Your task to perform on an android device: open app "Etsy: Buy & Sell Unique Items" Image 0: 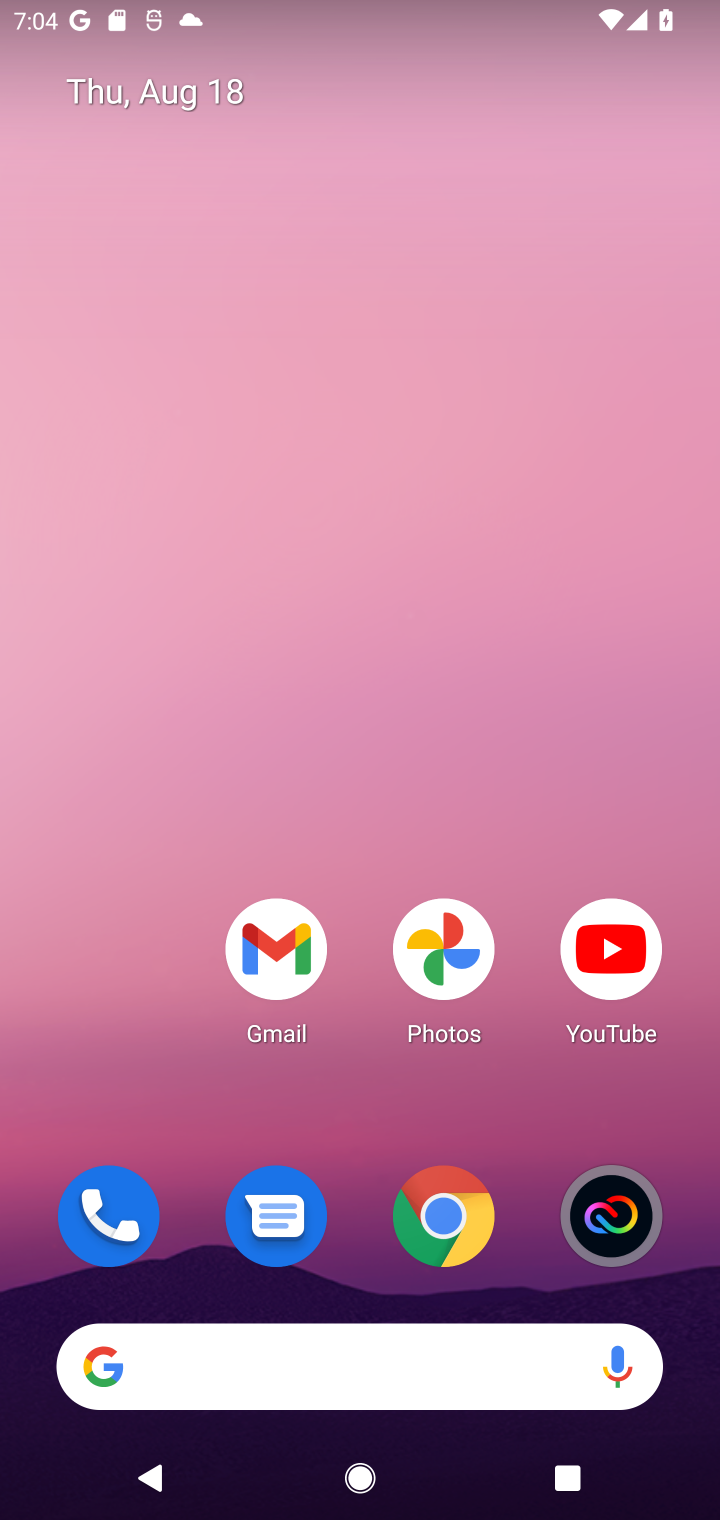
Step 0: drag from (552, 1293) to (556, 306)
Your task to perform on an android device: open app "Etsy: Buy & Sell Unique Items" Image 1: 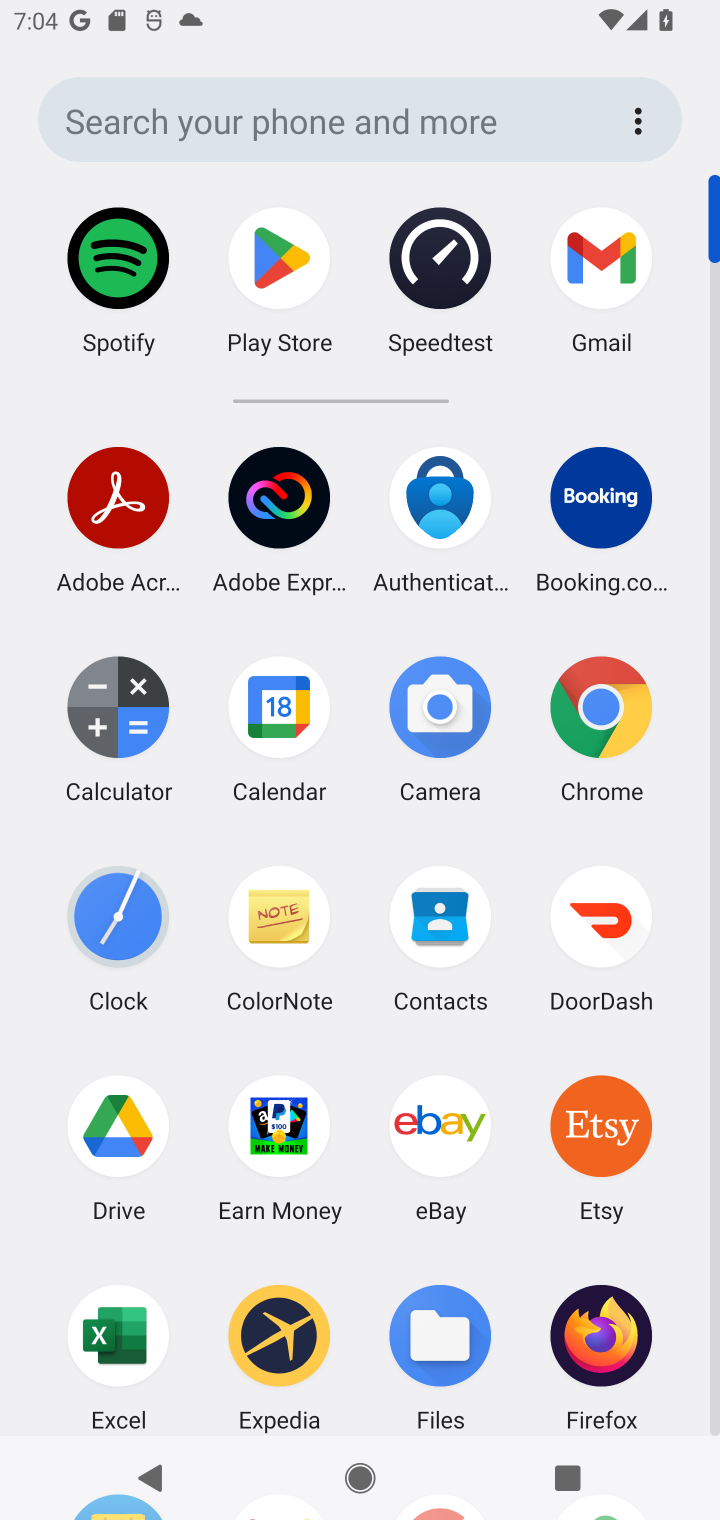
Step 1: drag from (513, 1055) to (530, 304)
Your task to perform on an android device: open app "Etsy: Buy & Sell Unique Items" Image 2: 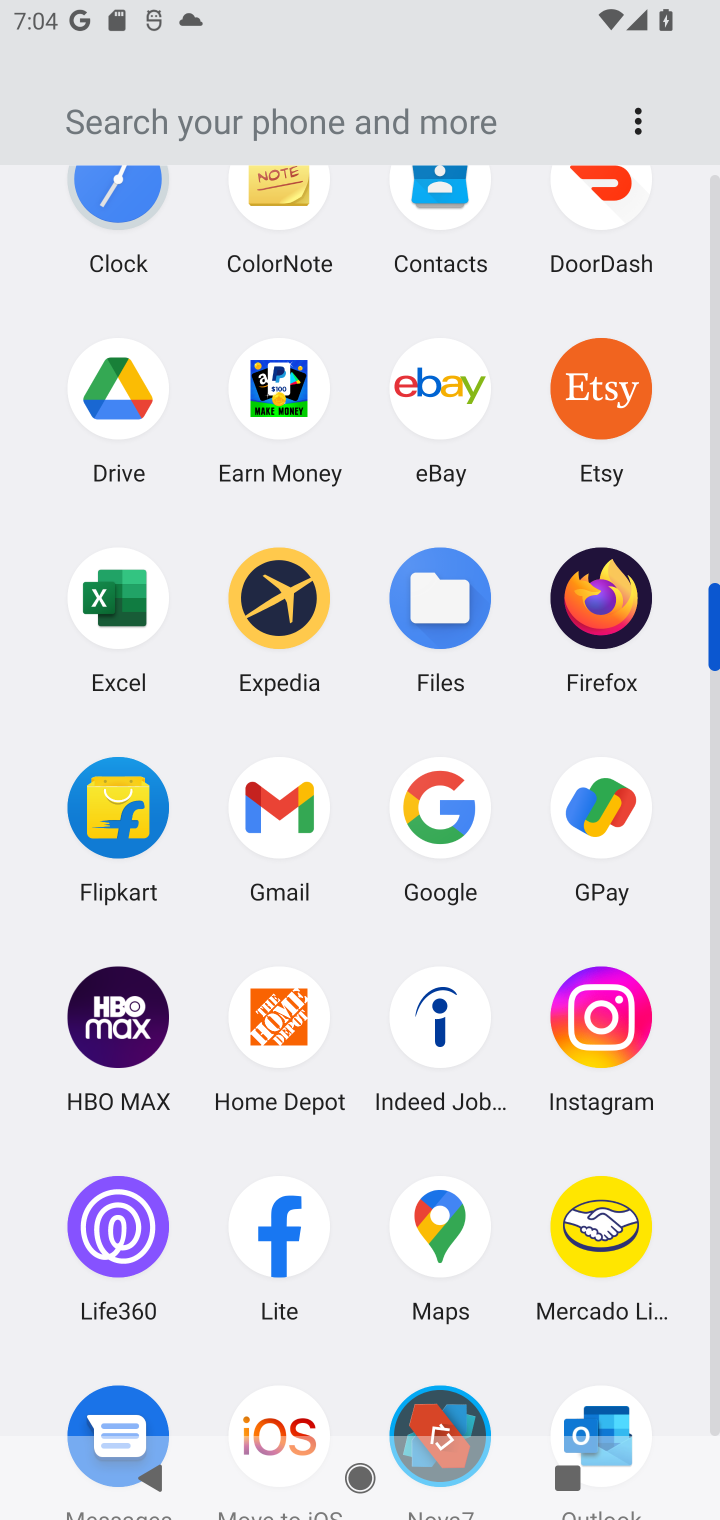
Step 2: drag from (518, 1366) to (496, 547)
Your task to perform on an android device: open app "Etsy: Buy & Sell Unique Items" Image 3: 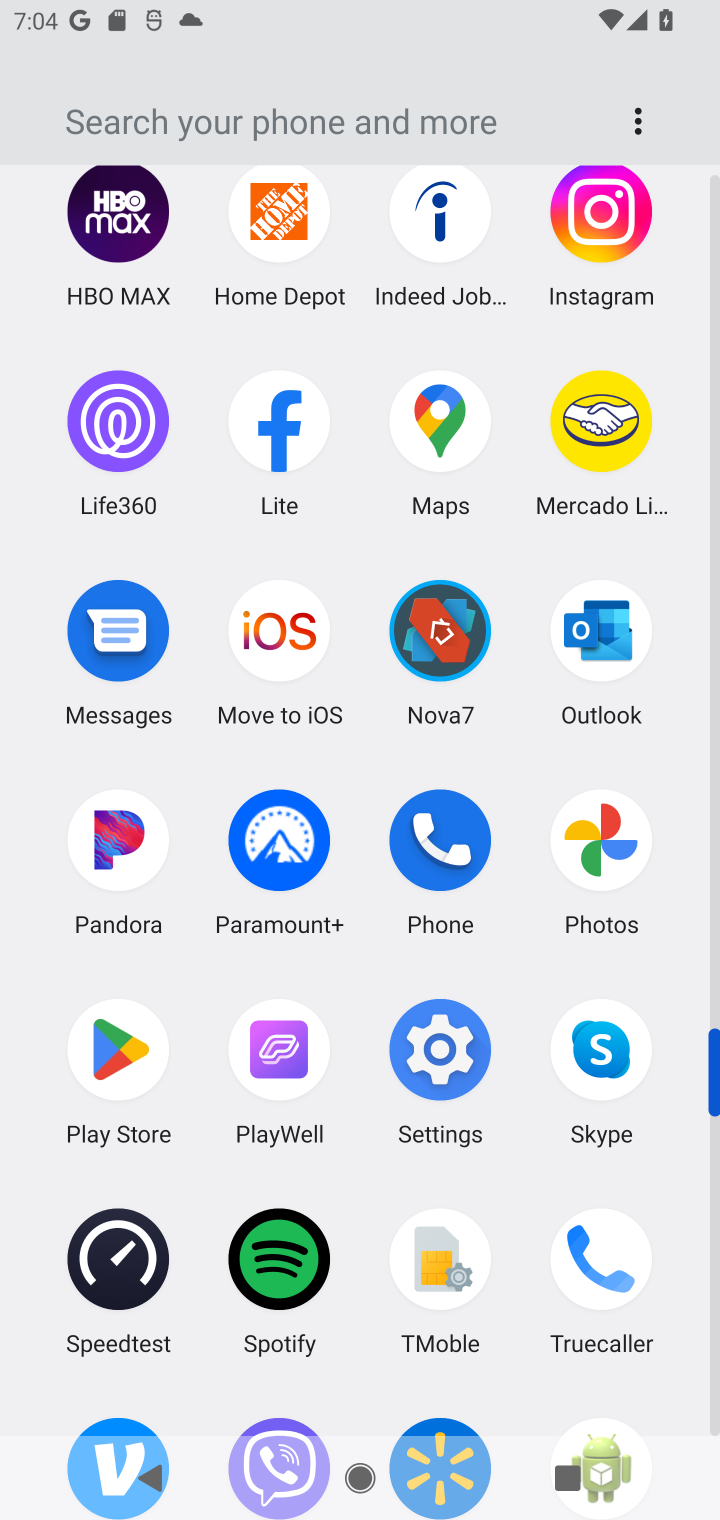
Step 3: click (121, 1047)
Your task to perform on an android device: open app "Etsy: Buy & Sell Unique Items" Image 4: 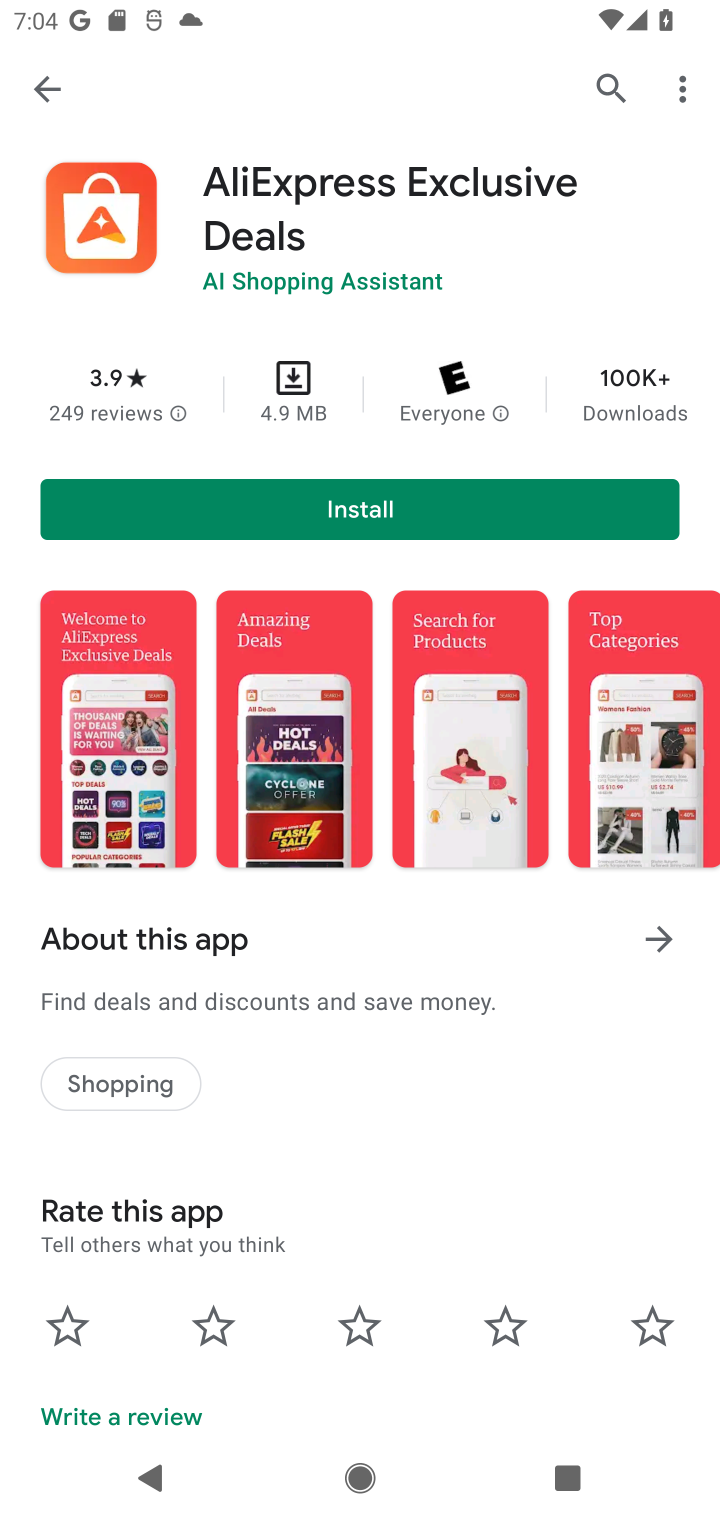
Step 4: click (599, 79)
Your task to perform on an android device: open app "Etsy: Buy & Sell Unique Items" Image 5: 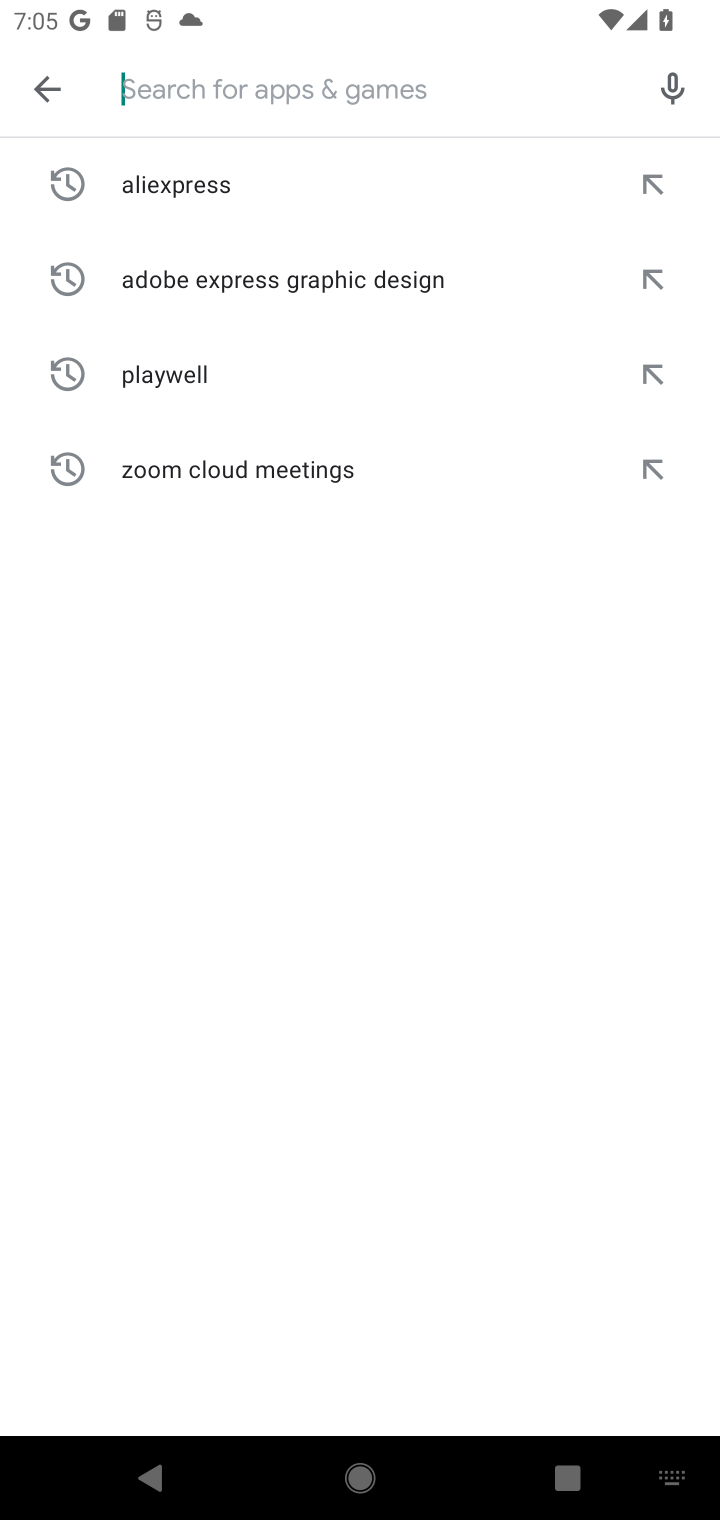
Step 5: type "Etsy: Buy & Sell Unique Items"
Your task to perform on an android device: open app "Etsy: Buy & Sell Unique Items" Image 6: 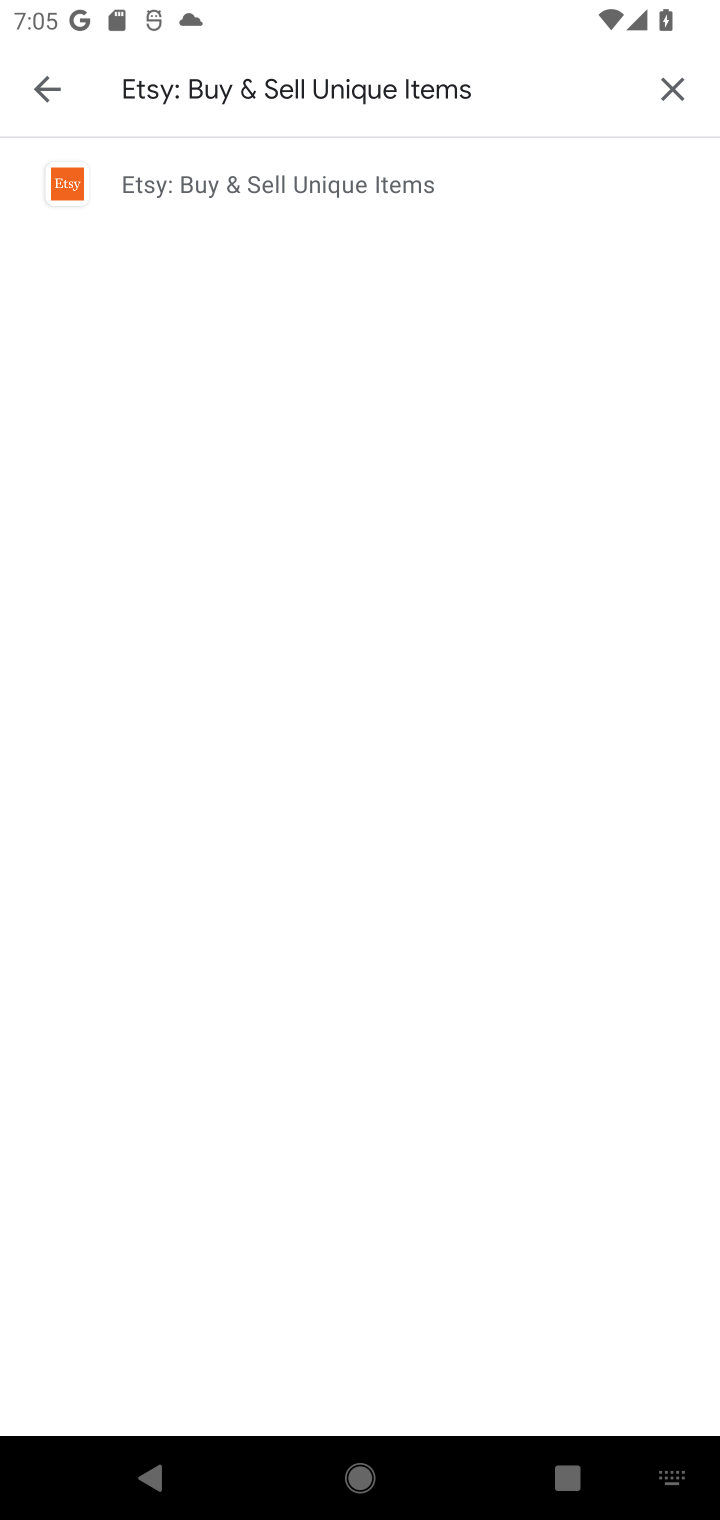
Step 6: click (221, 170)
Your task to perform on an android device: open app "Etsy: Buy & Sell Unique Items" Image 7: 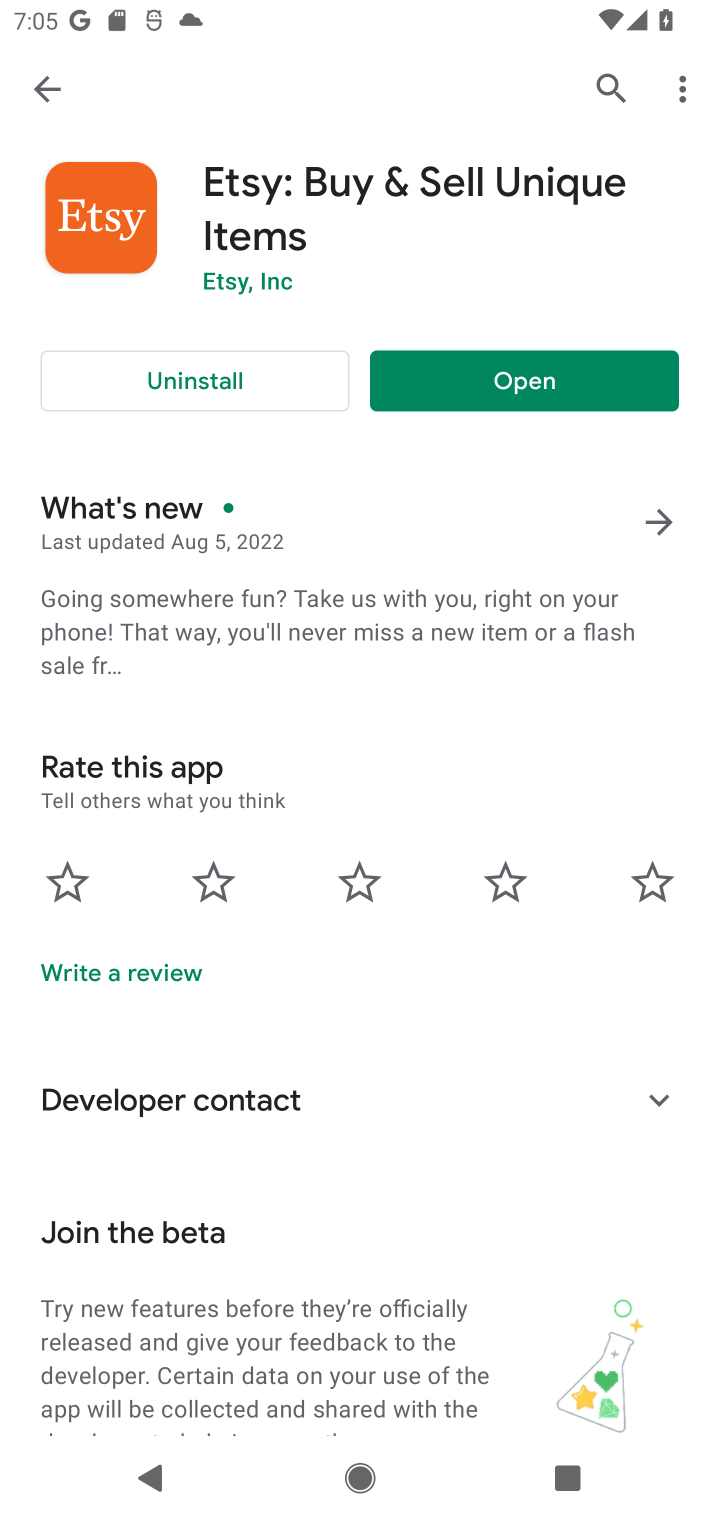
Step 7: click (541, 369)
Your task to perform on an android device: open app "Etsy: Buy & Sell Unique Items" Image 8: 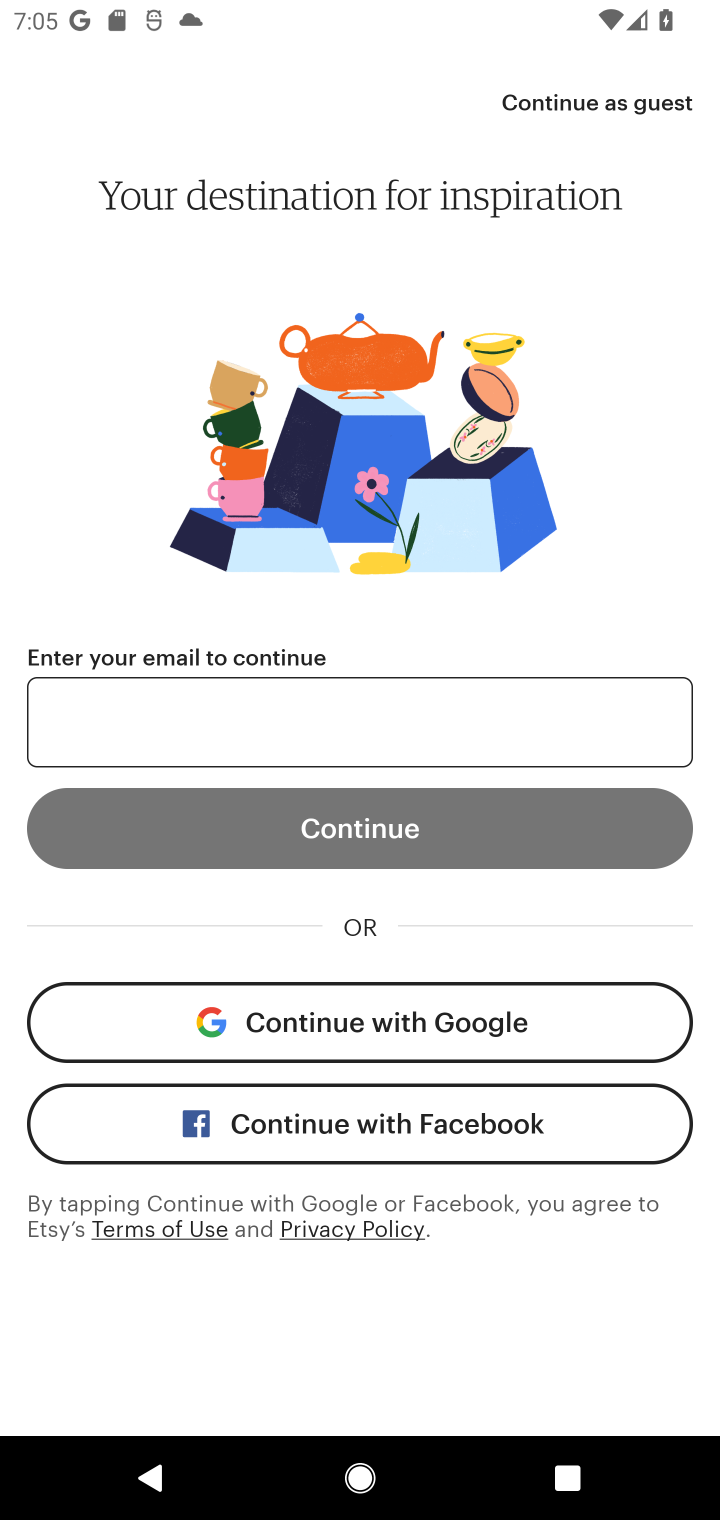
Step 8: task complete